Your task to perform on an android device: Open the Play Movies app and select the watchlist tab. Image 0: 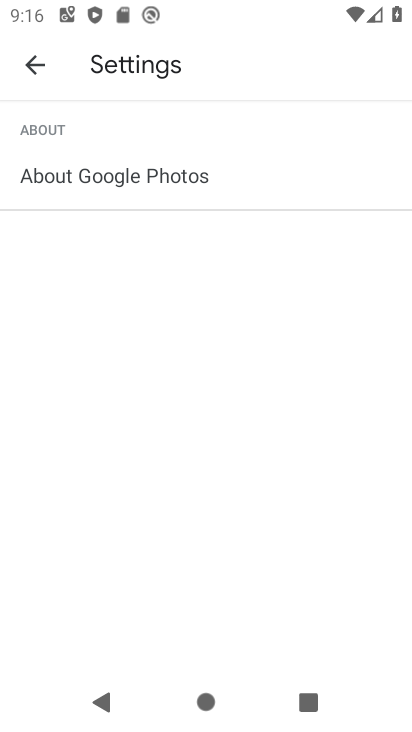
Step 0: press home button
Your task to perform on an android device: Open the Play Movies app and select the watchlist tab. Image 1: 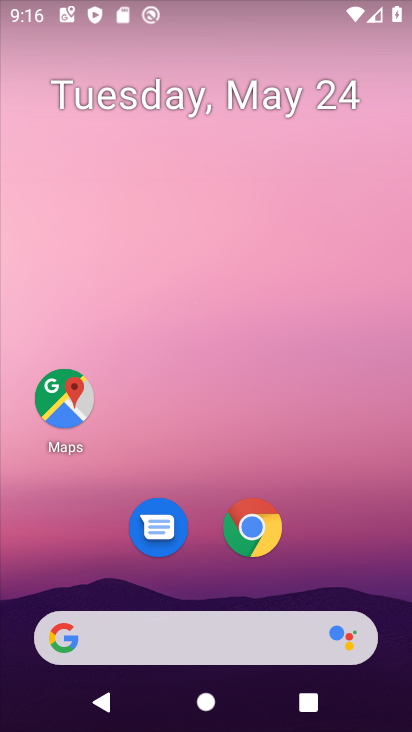
Step 1: drag from (211, 447) to (299, 61)
Your task to perform on an android device: Open the Play Movies app and select the watchlist tab. Image 2: 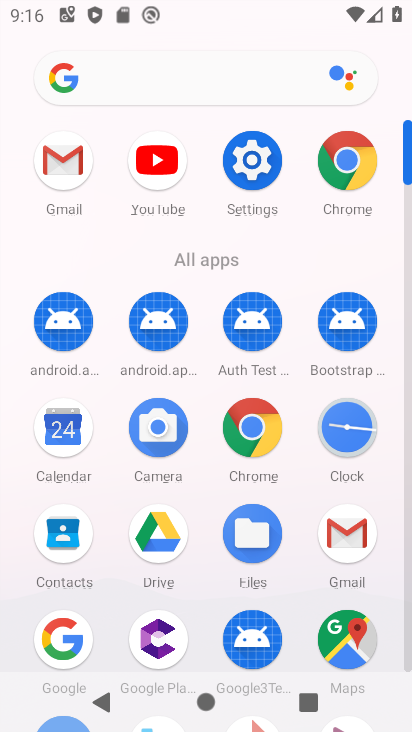
Step 2: drag from (213, 510) to (227, 258)
Your task to perform on an android device: Open the Play Movies app and select the watchlist tab. Image 3: 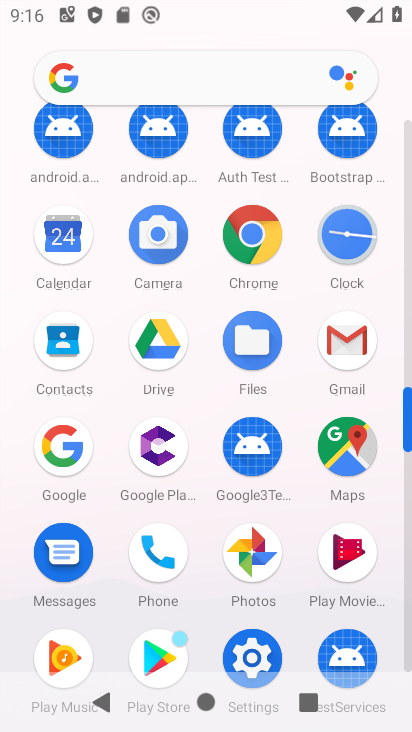
Step 3: click (356, 570)
Your task to perform on an android device: Open the Play Movies app and select the watchlist tab. Image 4: 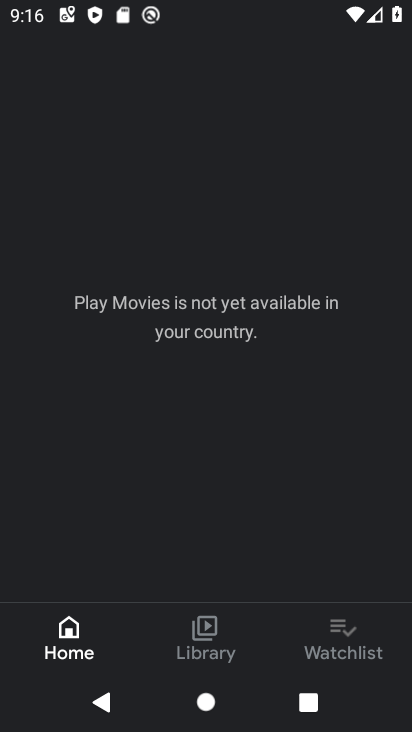
Step 4: click (332, 634)
Your task to perform on an android device: Open the Play Movies app and select the watchlist tab. Image 5: 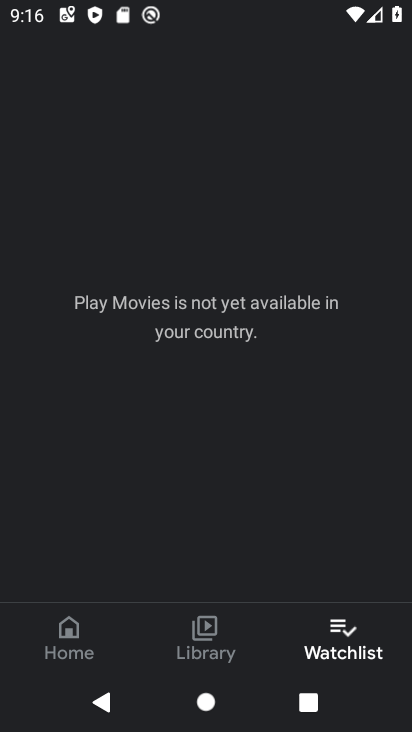
Step 5: task complete